Your task to perform on an android device: Open Reddit.com Image 0: 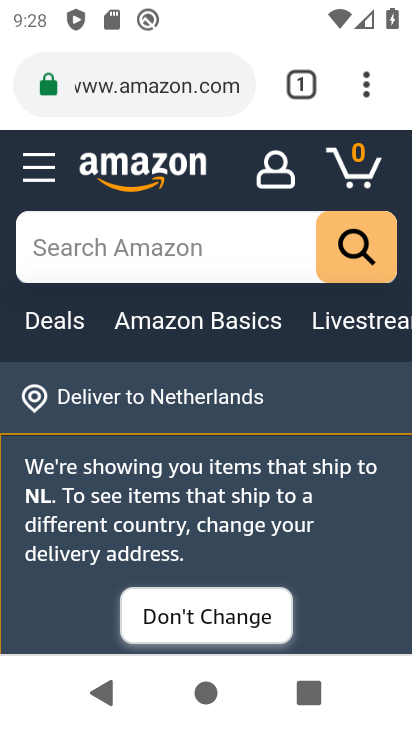
Step 0: press home button
Your task to perform on an android device: Open Reddit.com Image 1: 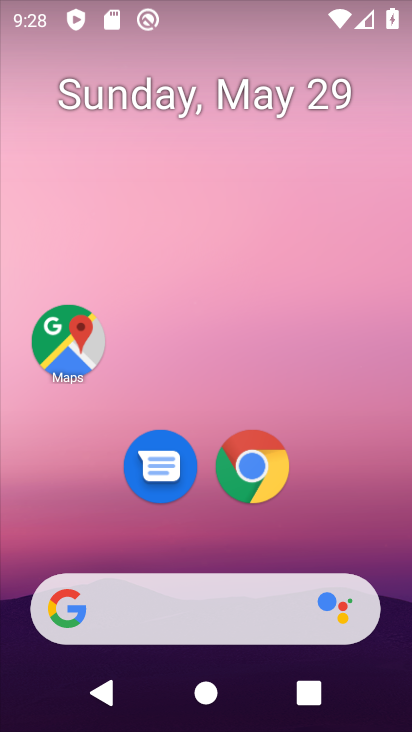
Step 1: drag from (211, 546) to (216, 488)
Your task to perform on an android device: Open Reddit.com Image 2: 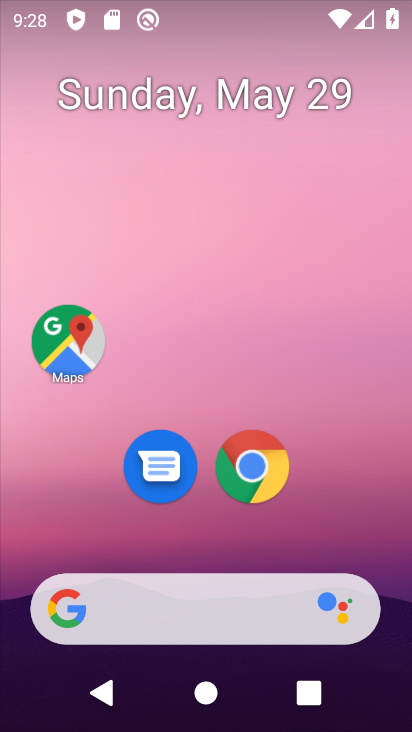
Step 2: click (235, 472)
Your task to perform on an android device: Open Reddit.com Image 3: 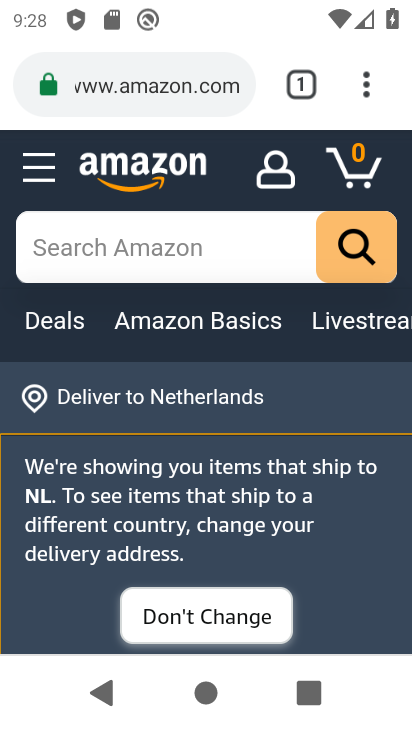
Step 3: click (287, 76)
Your task to perform on an android device: Open Reddit.com Image 4: 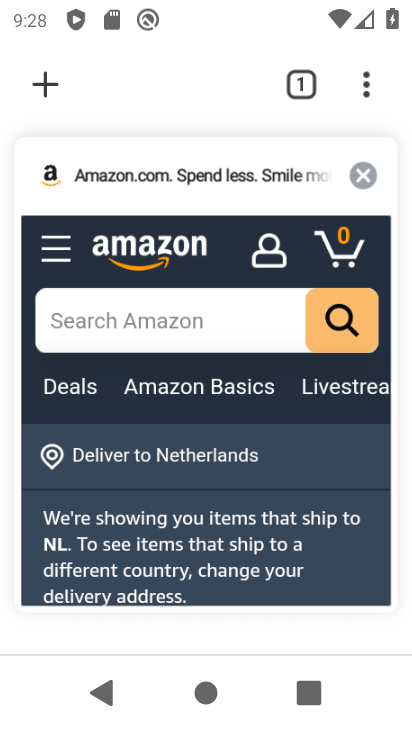
Step 4: click (49, 71)
Your task to perform on an android device: Open Reddit.com Image 5: 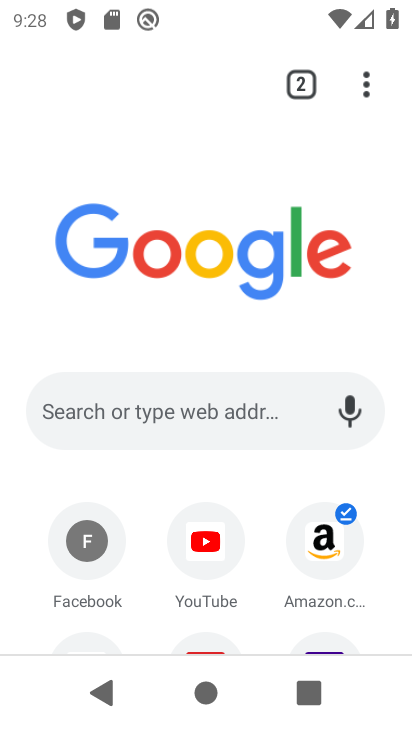
Step 5: click (158, 420)
Your task to perform on an android device: Open Reddit.com Image 6: 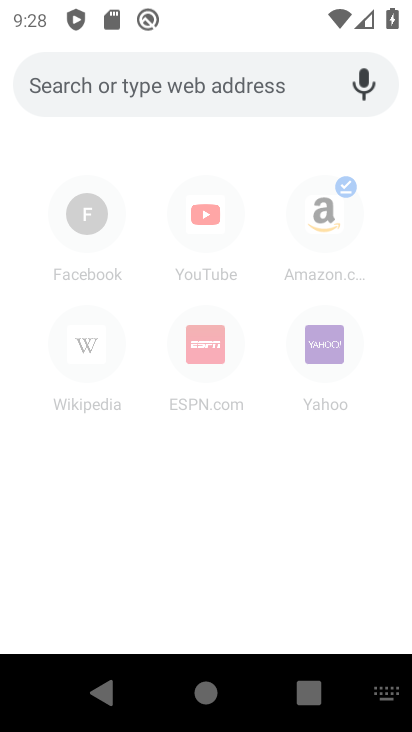
Step 6: type "Reddit.com"
Your task to perform on an android device: Open Reddit.com Image 7: 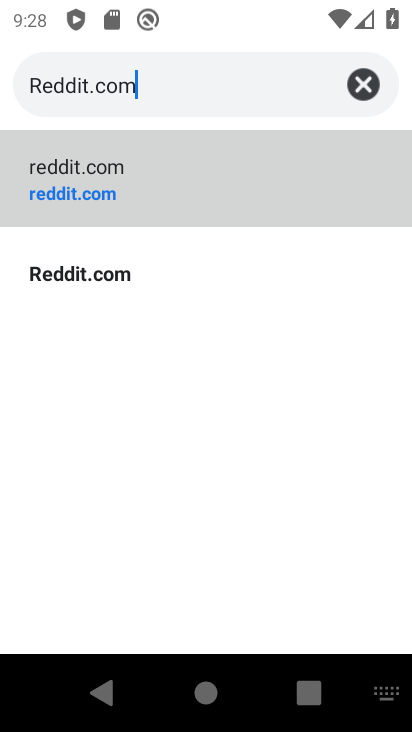
Step 7: click (151, 194)
Your task to perform on an android device: Open Reddit.com Image 8: 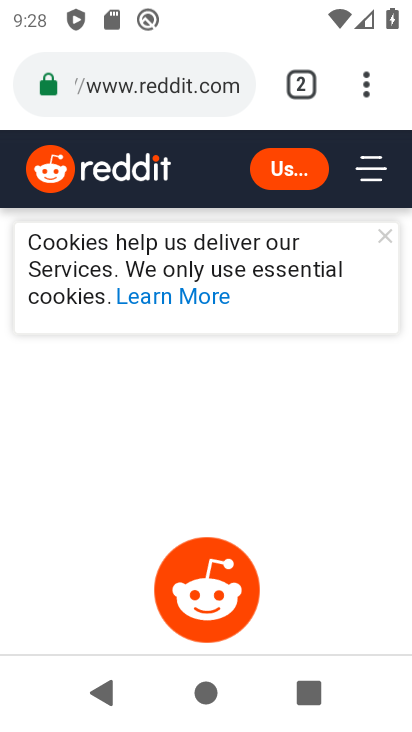
Step 8: task complete